Your task to perform on an android device: change keyboard looks Image 0: 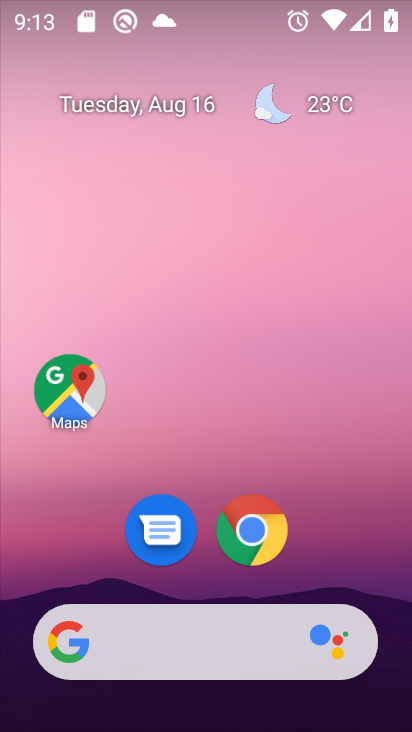
Step 0: drag from (337, 526) to (317, 50)
Your task to perform on an android device: change keyboard looks Image 1: 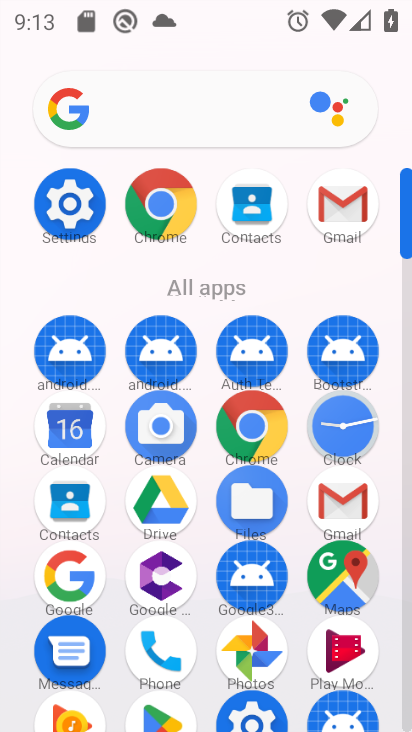
Step 1: click (261, 714)
Your task to perform on an android device: change keyboard looks Image 2: 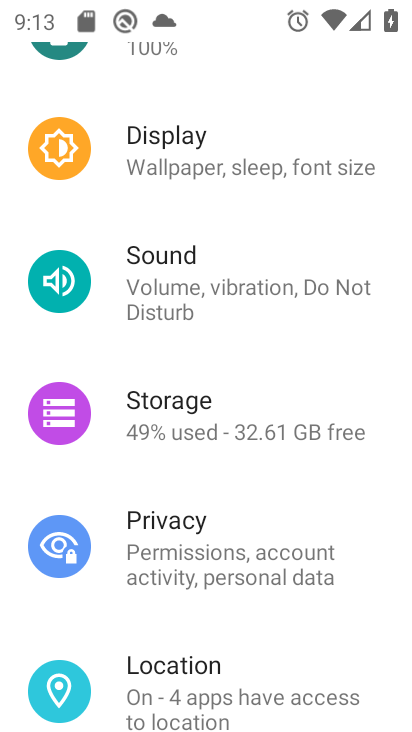
Step 2: drag from (298, 194) to (322, 595)
Your task to perform on an android device: change keyboard looks Image 3: 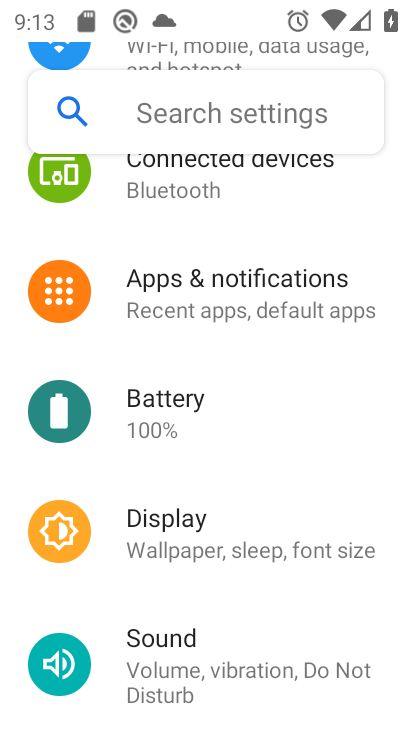
Step 3: drag from (293, 530) to (335, 110)
Your task to perform on an android device: change keyboard looks Image 4: 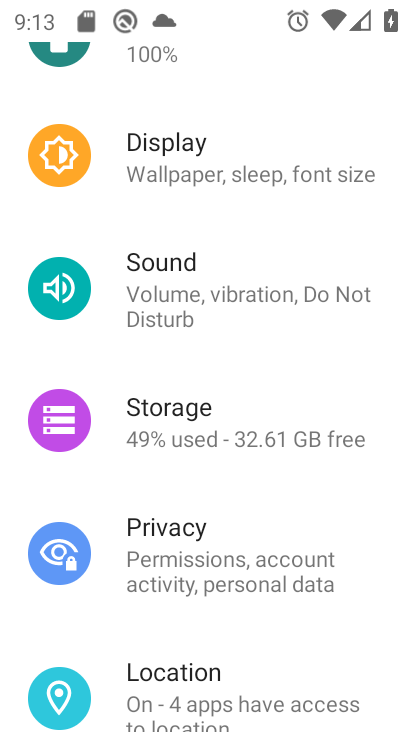
Step 4: drag from (271, 526) to (311, 209)
Your task to perform on an android device: change keyboard looks Image 5: 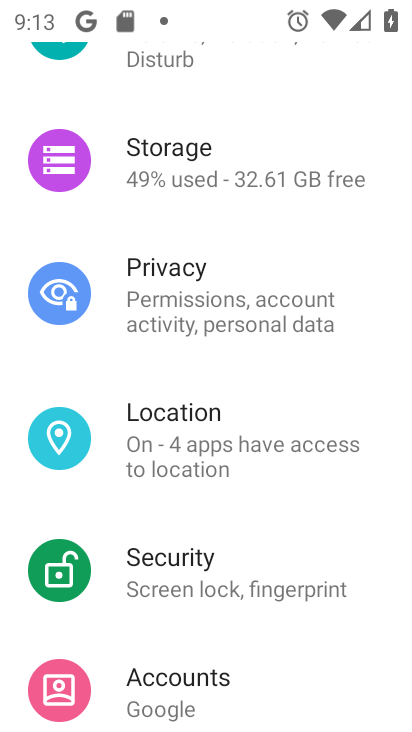
Step 5: drag from (257, 557) to (300, 154)
Your task to perform on an android device: change keyboard looks Image 6: 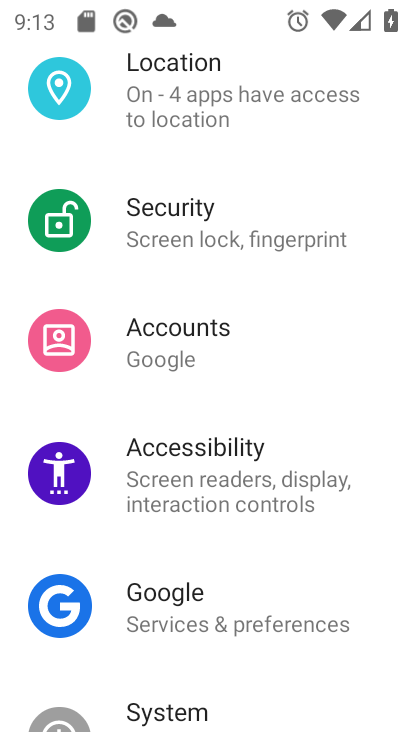
Step 6: drag from (275, 578) to (298, 124)
Your task to perform on an android device: change keyboard looks Image 7: 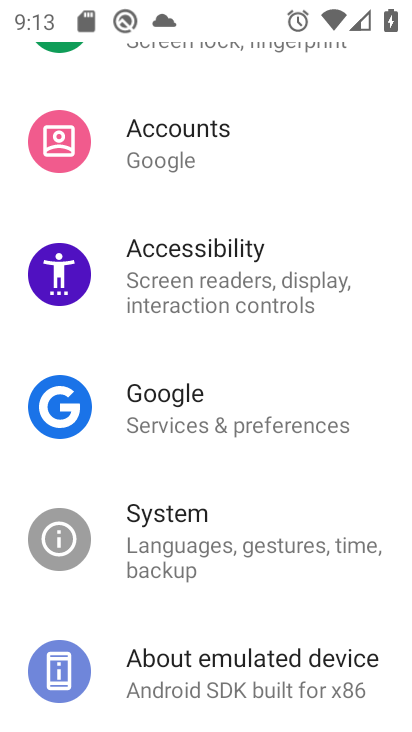
Step 7: click (255, 524)
Your task to perform on an android device: change keyboard looks Image 8: 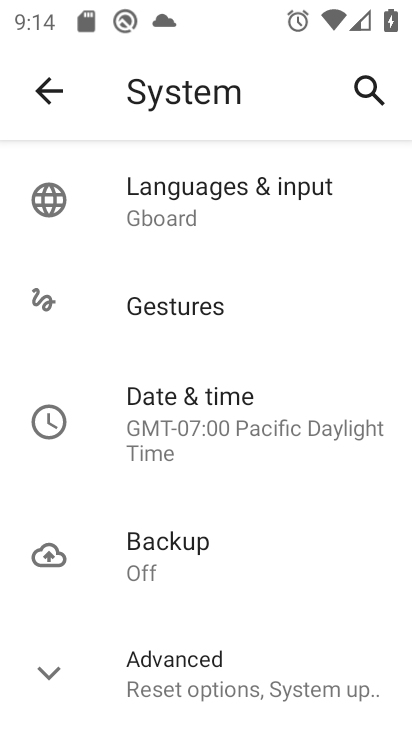
Step 8: click (205, 204)
Your task to perform on an android device: change keyboard looks Image 9: 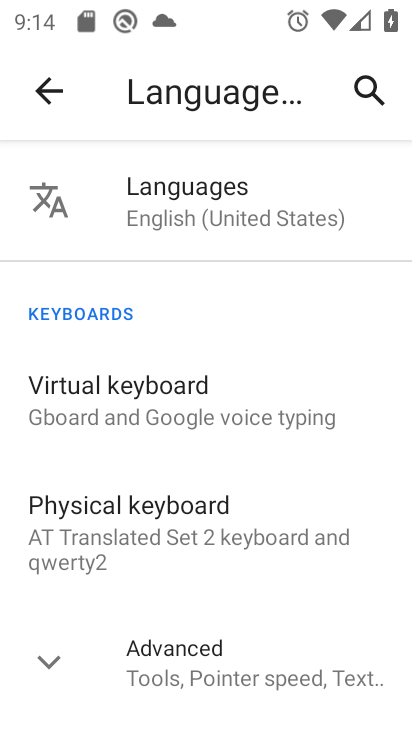
Step 9: click (187, 415)
Your task to perform on an android device: change keyboard looks Image 10: 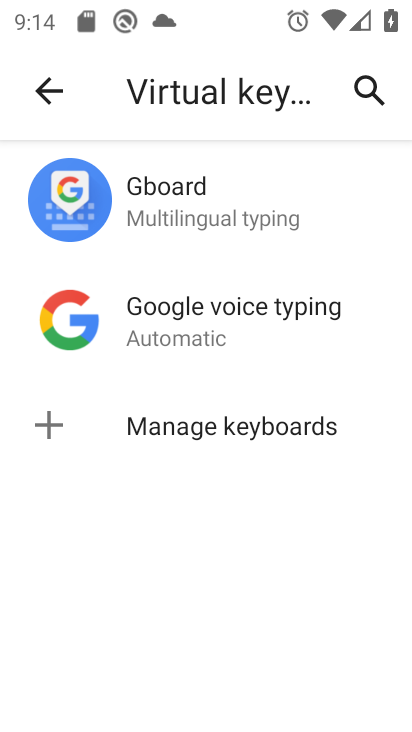
Step 10: click (225, 188)
Your task to perform on an android device: change keyboard looks Image 11: 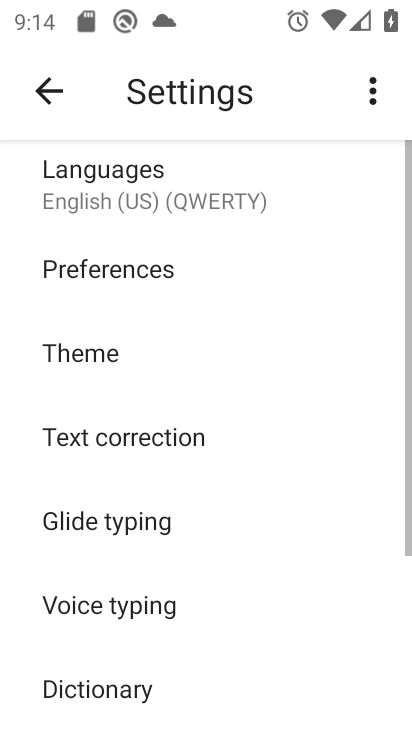
Step 11: click (103, 362)
Your task to perform on an android device: change keyboard looks Image 12: 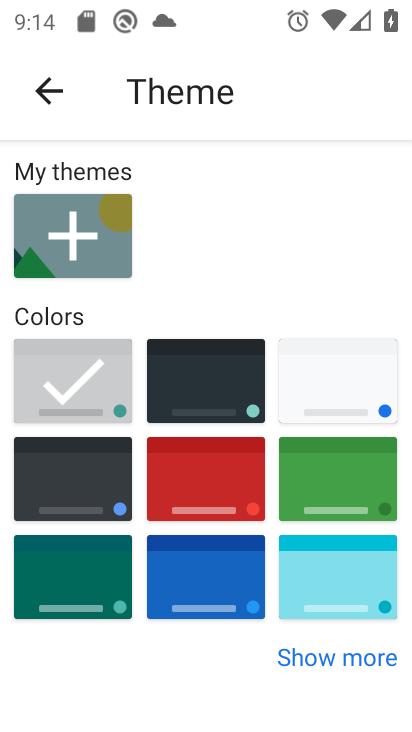
Step 12: click (342, 392)
Your task to perform on an android device: change keyboard looks Image 13: 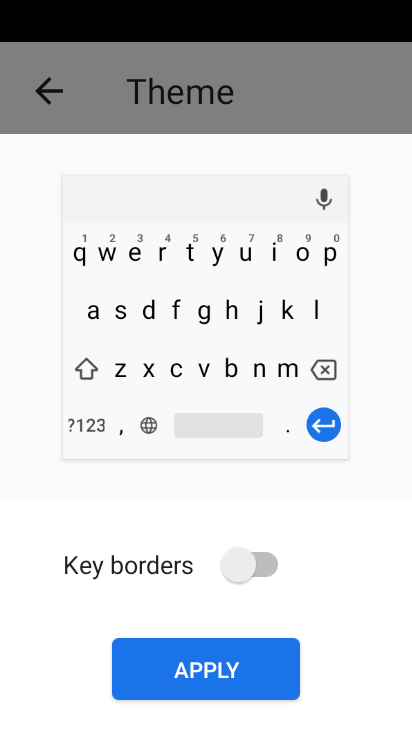
Step 13: click (218, 657)
Your task to perform on an android device: change keyboard looks Image 14: 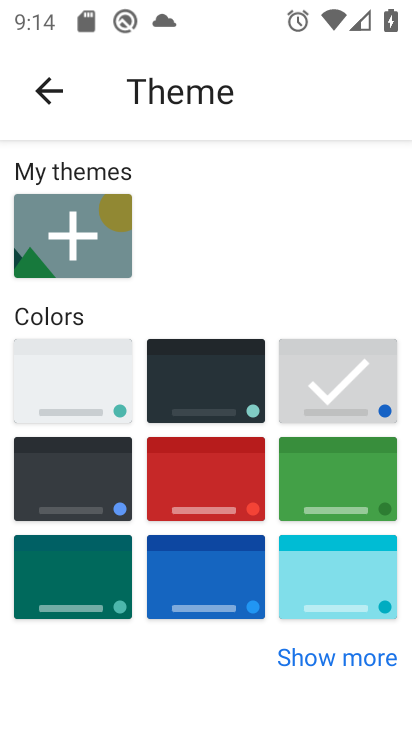
Step 14: task complete